Your task to perform on an android device: set default search engine in the chrome app Image 0: 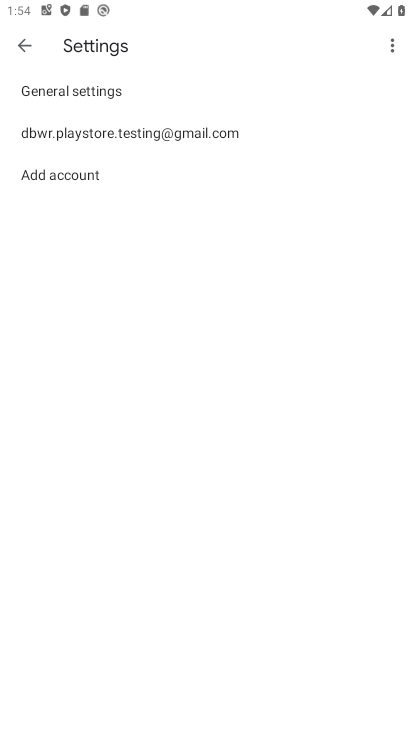
Step 0: press back button
Your task to perform on an android device: set default search engine in the chrome app Image 1: 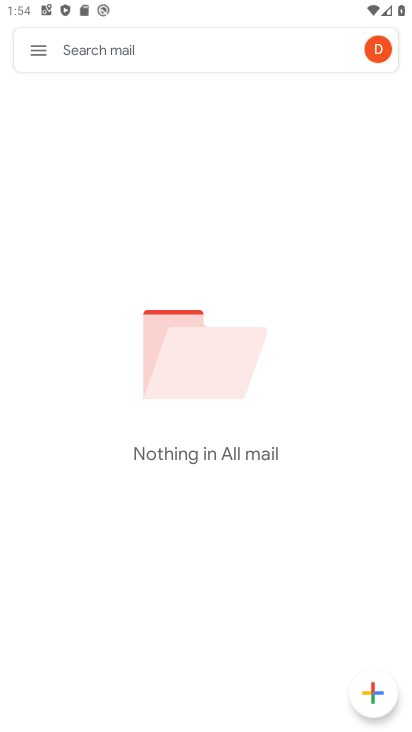
Step 1: press back button
Your task to perform on an android device: set default search engine in the chrome app Image 2: 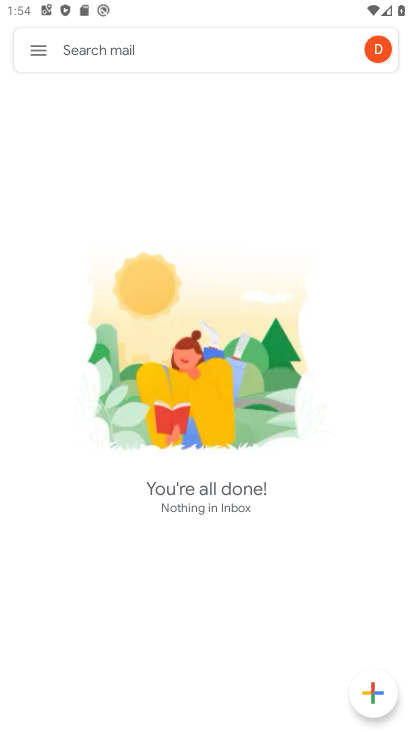
Step 2: press back button
Your task to perform on an android device: set default search engine in the chrome app Image 3: 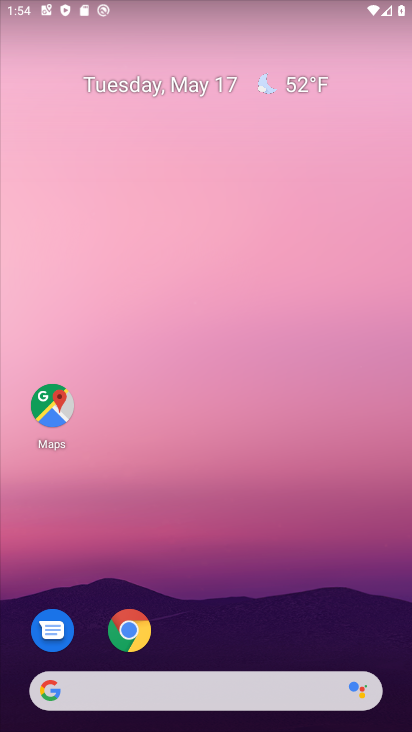
Step 3: click (140, 615)
Your task to perform on an android device: set default search engine in the chrome app Image 4: 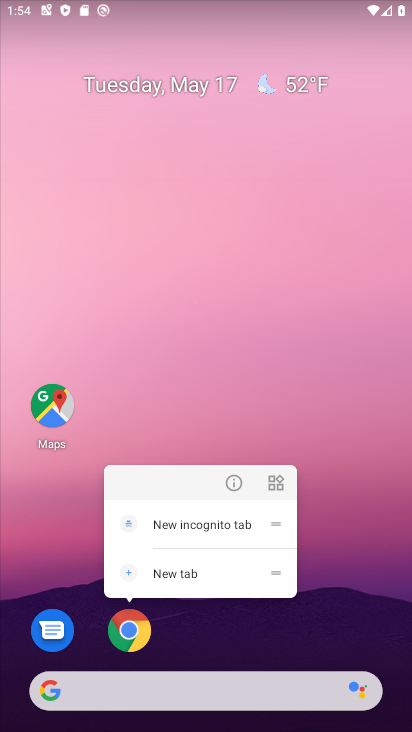
Step 4: click (133, 632)
Your task to perform on an android device: set default search engine in the chrome app Image 5: 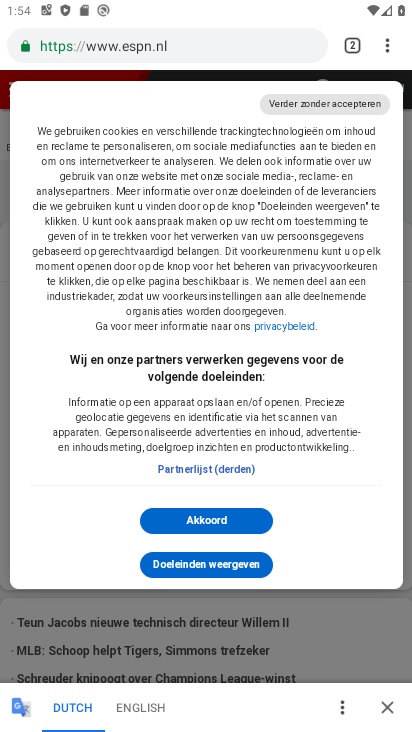
Step 5: drag from (384, 39) to (223, 549)
Your task to perform on an android device: set default search engine in the chrome app Image 6: 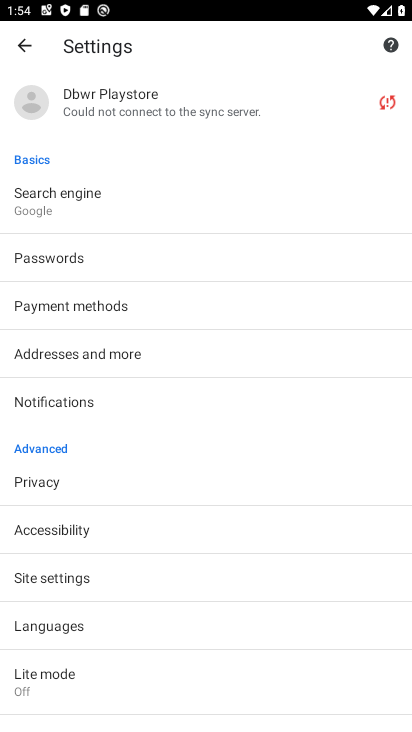
Step 6: click (52, 196)
Your task to perform on an android device: set default search engine in the chrome app Image 7: 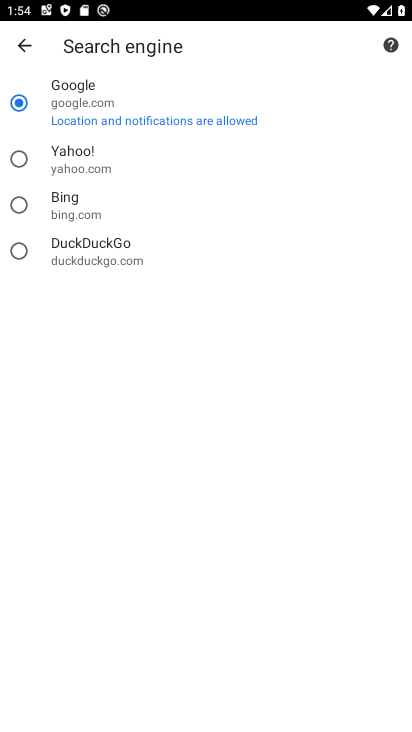
Step 7: click (60, 161)
Your task to perform on an android device: set default search engine in the chrome app Image 8: 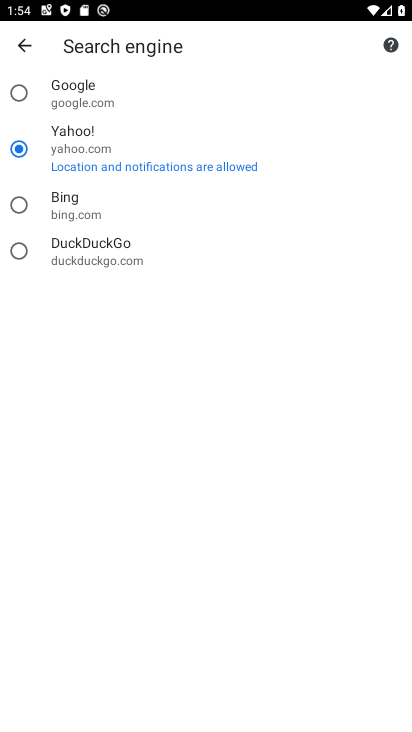
Step 8: task complete